Your task to perform on an android device: Check the news Image 0: 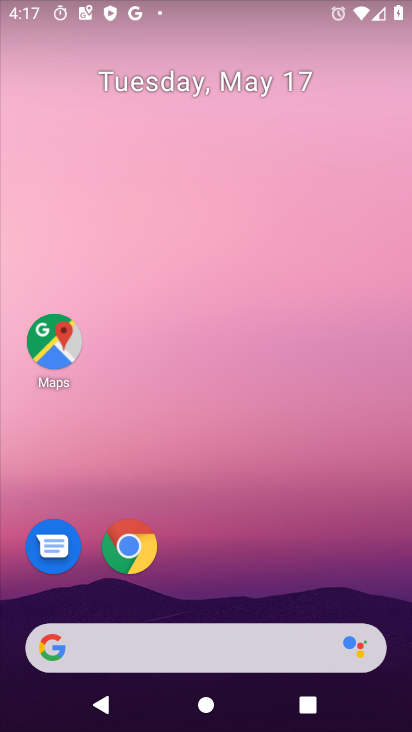
Step 0: drag from (392, 525) to (380, 297)
Your task to perform on an android device: Check the news Image 1: 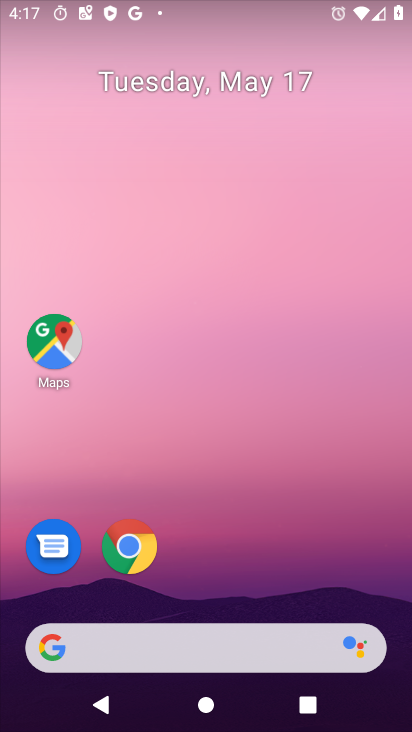
Step 1: drag from (401, 641) to (377, 319)
Your task to perform on an android device: Check the news Image 2: 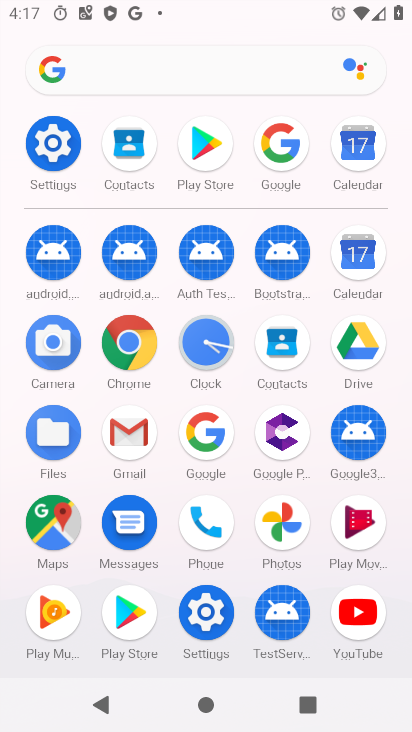
Step 2: click (236, 430)
Your task to perform on an android device: Check the news Image 3: 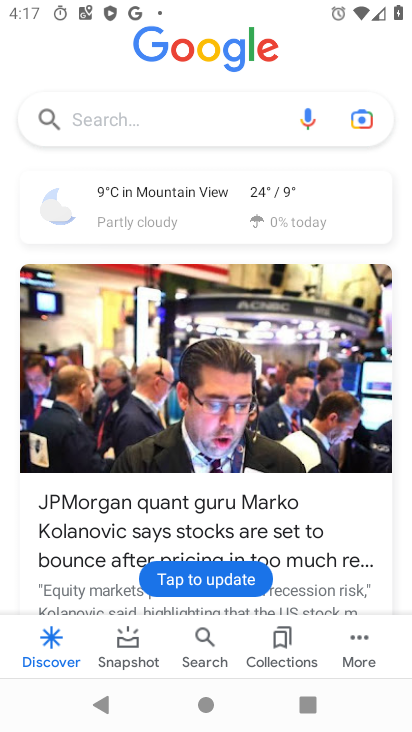
Step 3: task complete